Your task to perform on an android device: open app "Google Play Music" (install if not already installed) Image 0: 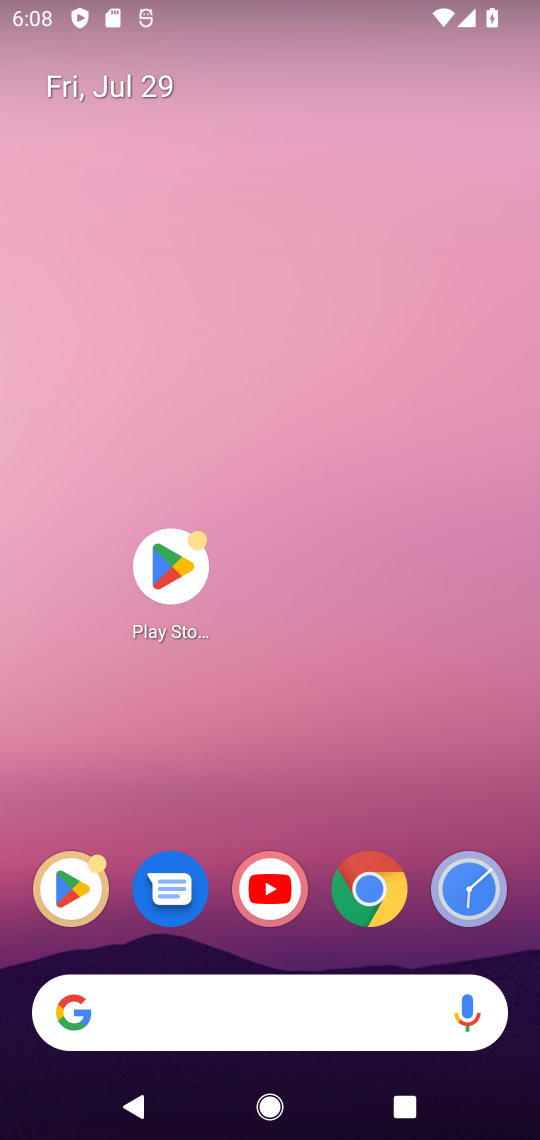
Step 0: click (179, 559)
Your task to perform on an android device: open app "Google Play Music" (install if not already installed) Image 1: 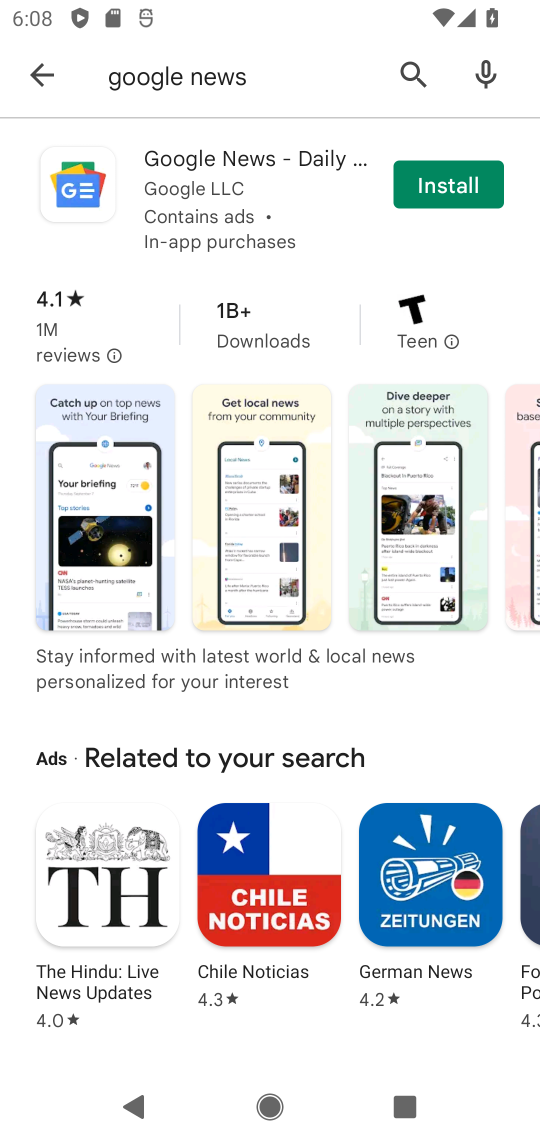
Step 1: click (407, 67)
Your task to perform on an android device: open app "Google Play Music" (install if not already installed) Image 2: 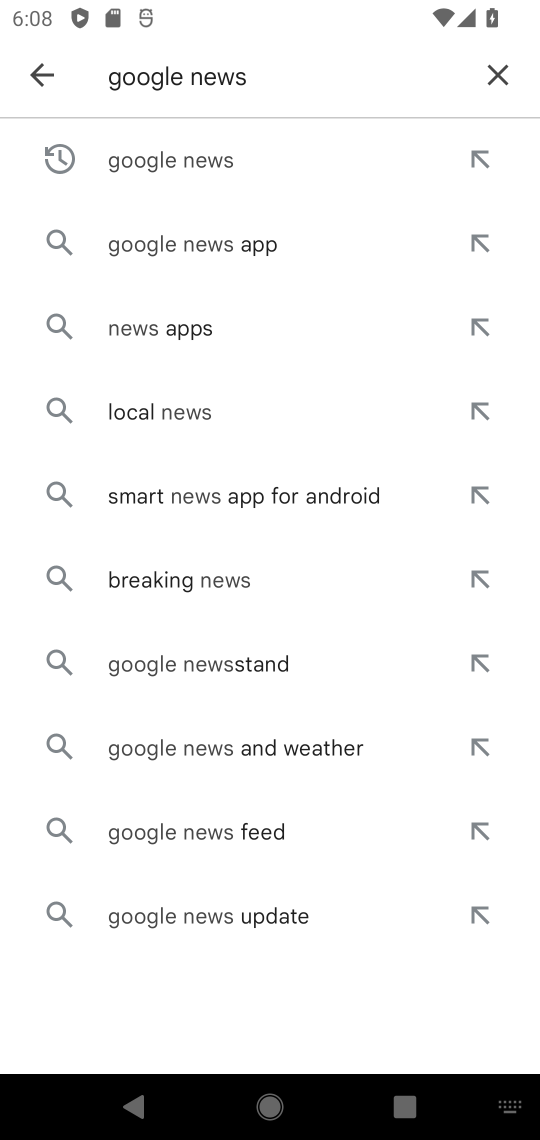
Step 2: click (497, 74)
Your task to perform on an android device: open app "Google Play Music" (install if not already installed) Image 3: 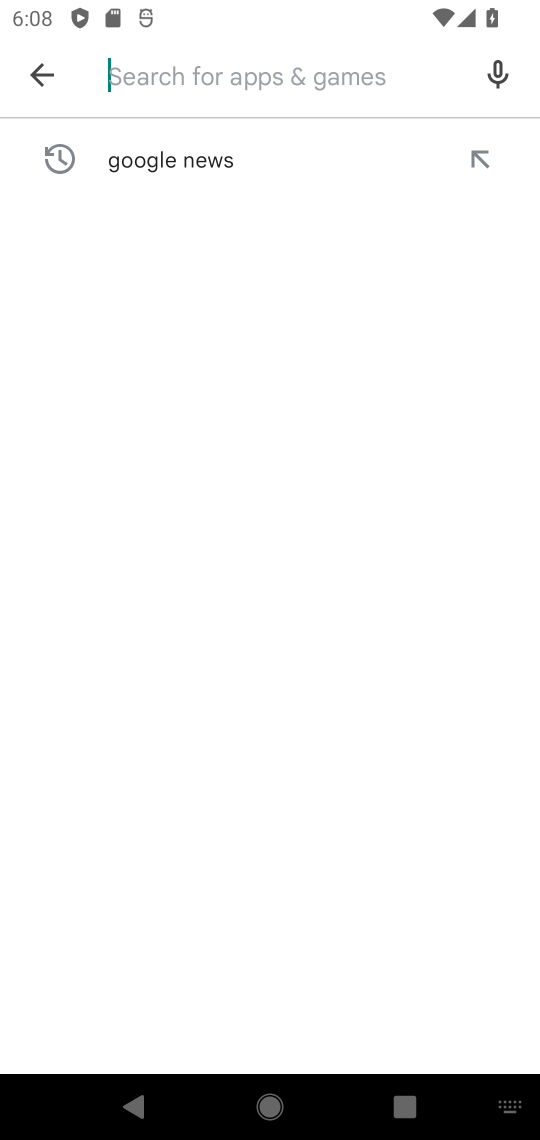
Step 3: type "Google Play Music"
Your task to perform on an android device: open app "Google Play Music" (install if not already installed) Image 4: 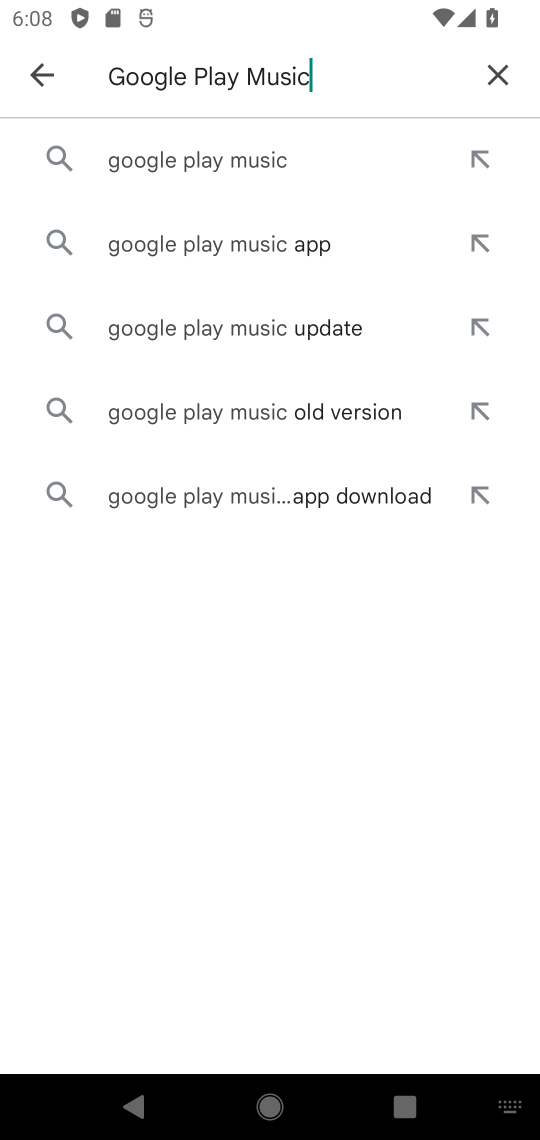
Step 4: click (165, 158)
Your task to perform on an android device: open app "Google Play Music" (install if not already installed) Image 5: 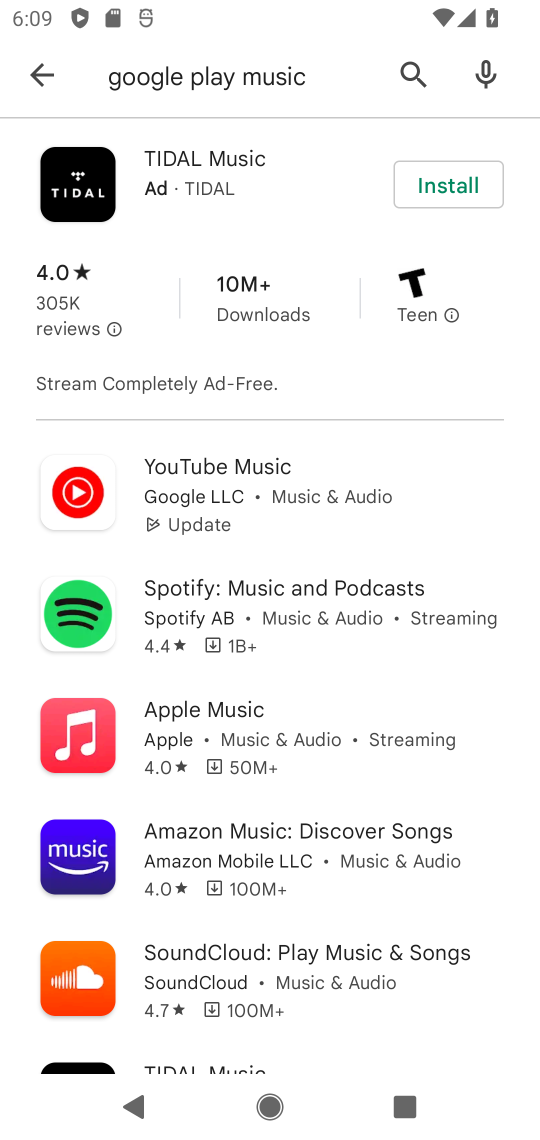
Step 5: task complete